Your task to perform on an android device: Open internet settings Image 0: 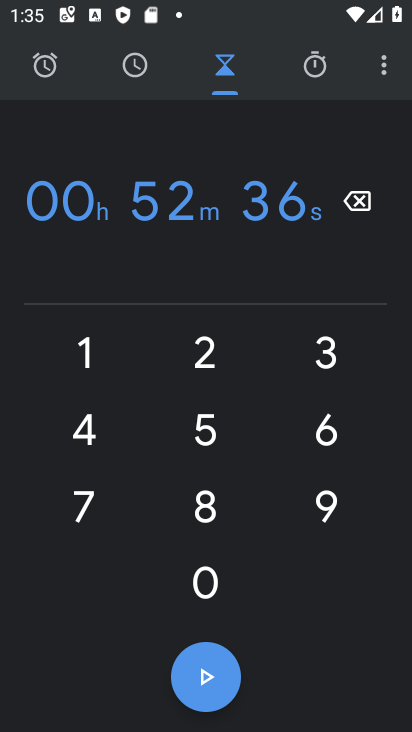
Step 0: press home button
Your task to perform on an android device: Open internet settings Image 1: 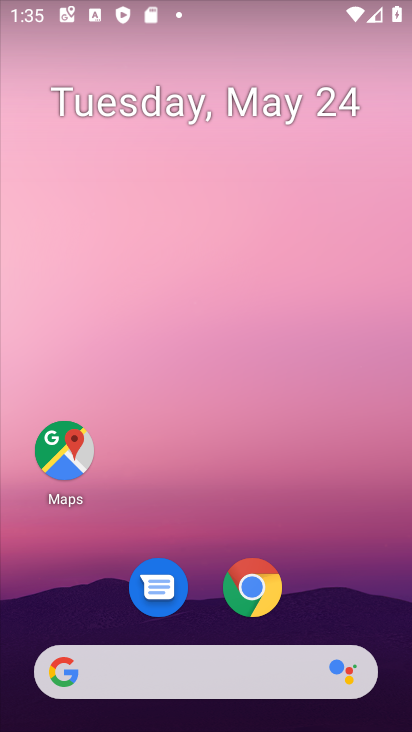
Step 1: drag from (137, 701) to (174, 80)
Your task to perform on an android device: Open internet settings Image 2: 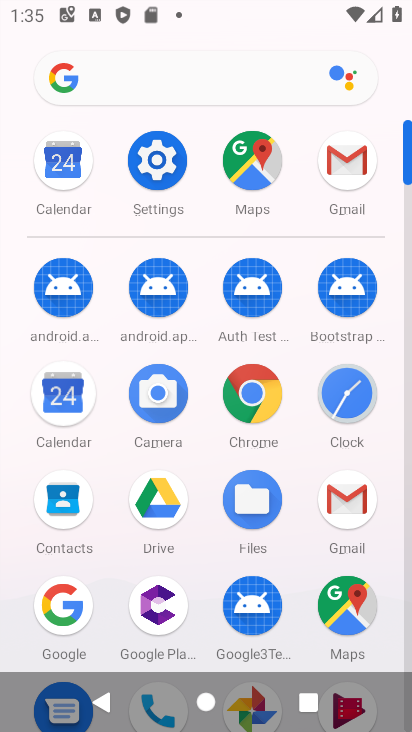
Step 2: click (148, 153)
Your task to perform on an android device: Open internet settings Image 3: 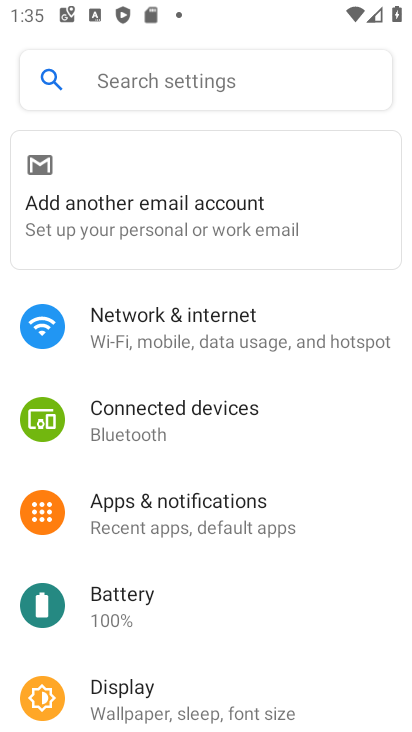
Step 3: click (299, 318)
Your task to perform on an android device: Open internet settings Image 4: 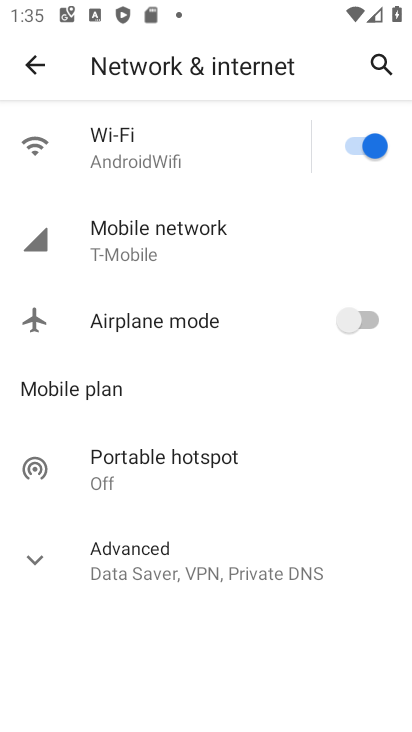
Step 4: task complete